Your task to perform on an android device: turn off picture-in-picture Image 0: 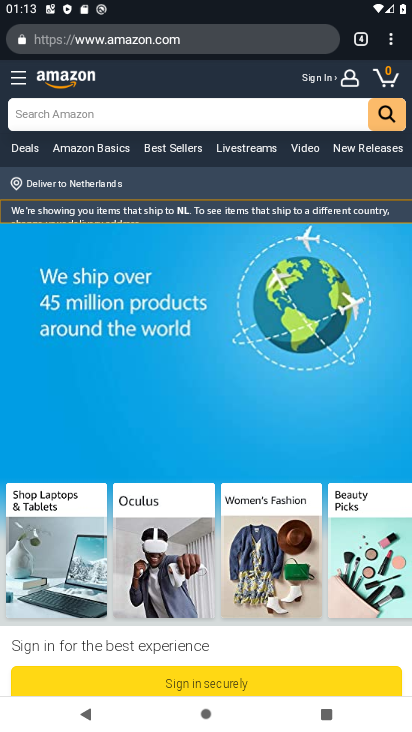
Step 0: press home button
Your task to perform on an android device: turn off picture-in-picture Image 1: 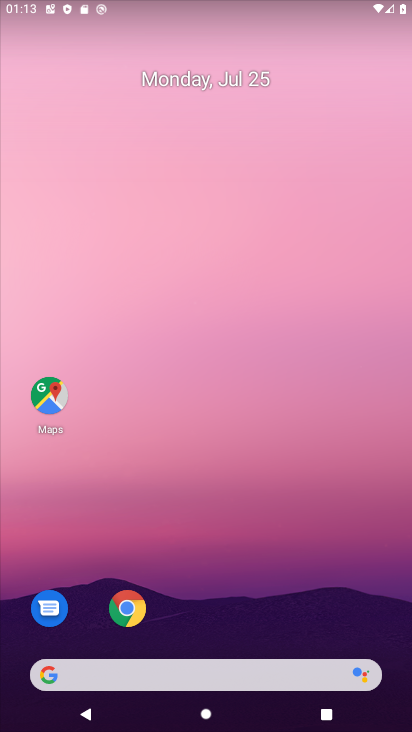
Step 1: drag from (196, 631) to (187, 42)
Your task to perform on an android device: turn off picture-in-picture Image 2: 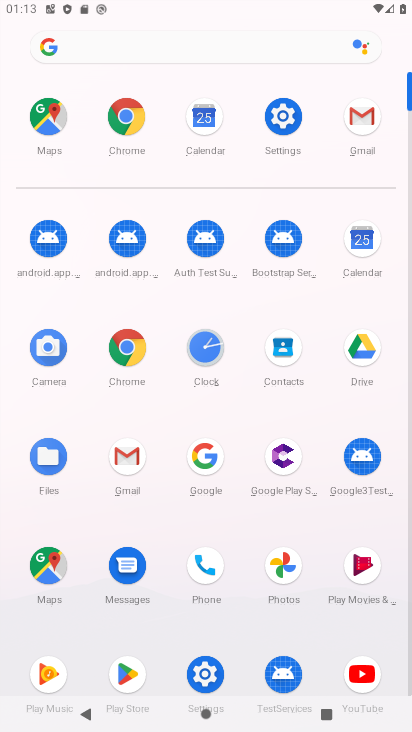
Step 2: click (284, 111)
Your task to perform on an android device: turn off picture-in-picture Image 3: 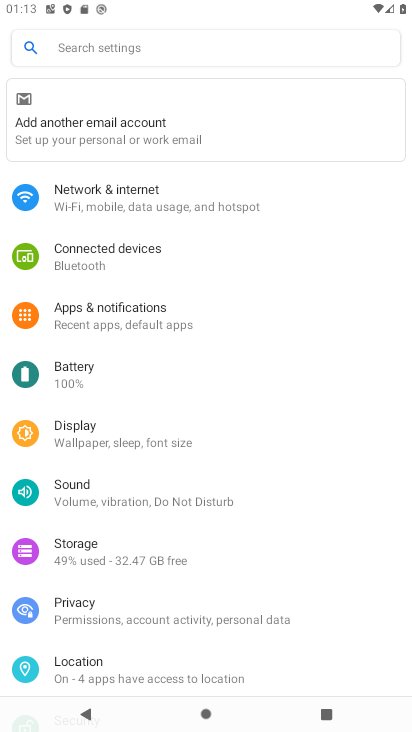
Step 3: click (98, 298)
Your task to perform on an android device: turn off picture-in-picture Image 4: 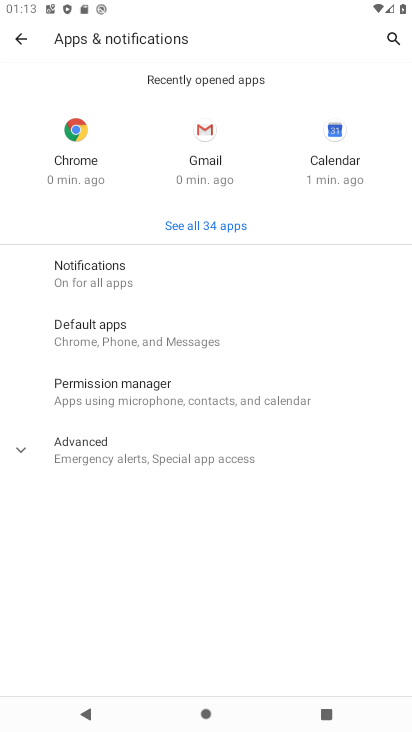
Step 4: click (114, 272)
Your task to perform on an android device: turn off picture-in-picture Image 5: 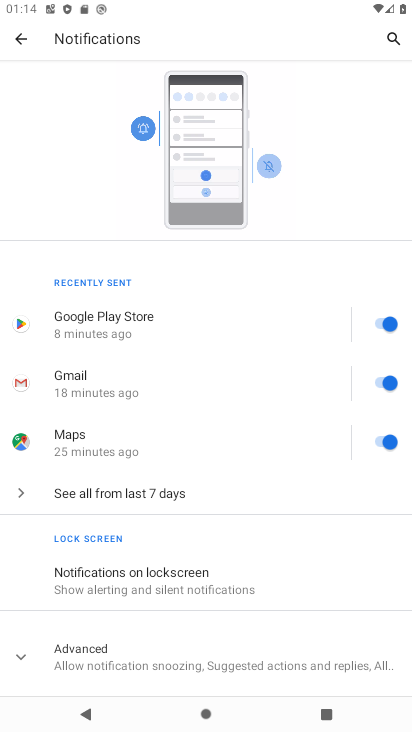
Step 5: click (157, 672)
Your task to perform on an android device: turn off picture-in-picture Image 6: 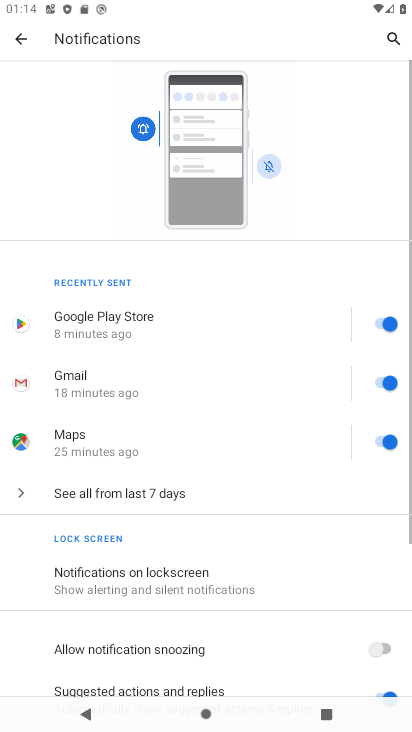
Step 6: drag from (178, 626) to (144, 170)
Your task to perform on an android device: turn off picture-in-picture Image 7: 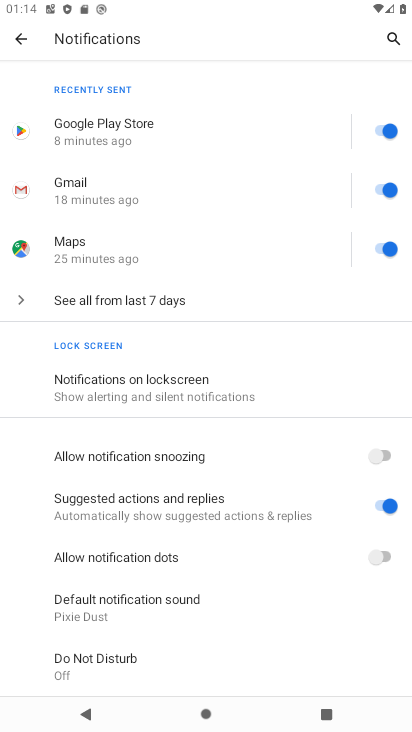
Step 7: click (41, 32)
Your task to perform on an android device: turn off picture-in-picture Image 8: 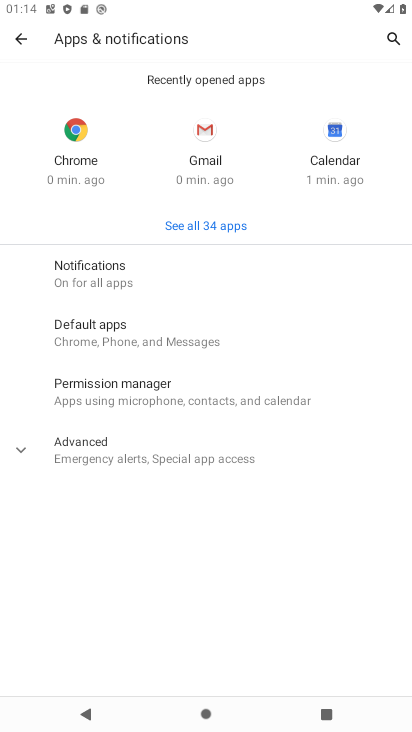
Step 8: click (30, 40)
Your task to perform on an android device: turn off picture-in-picture Image 9: 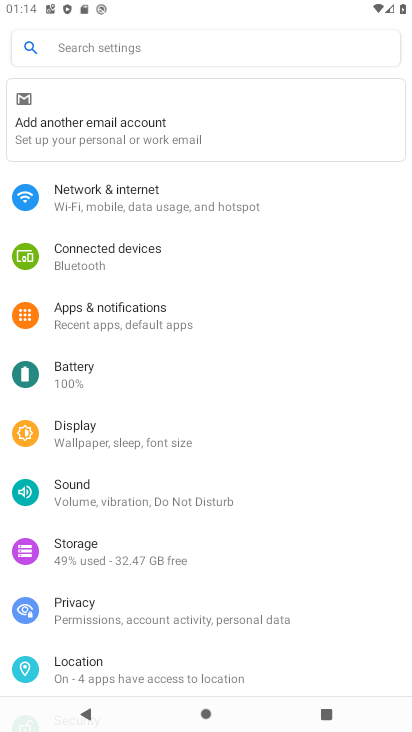
Step 9: click (101, 329)
Your task to perform on an android device: turn off picture-in-picture Image 10: 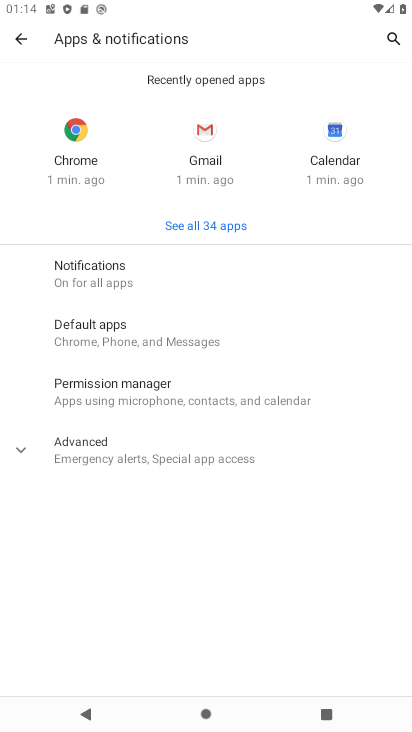
Step 10: click (122, 437)
Your task to perform on an android device: turn off picture-in-picture Image 11: 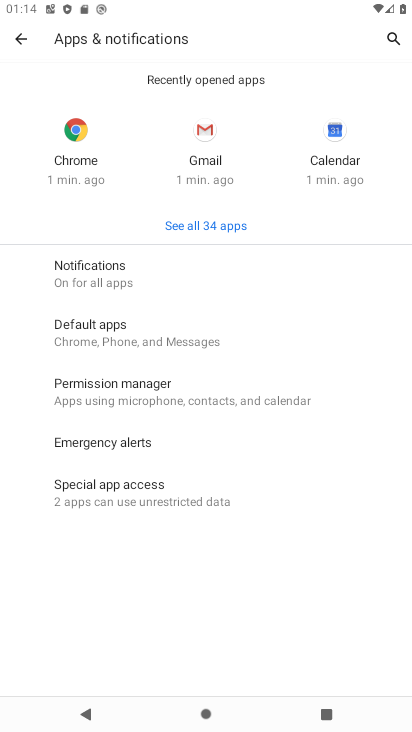
Step 11: click (128, 518)
Your task to perform on an android device: turn off picture-in-picture Image 12: 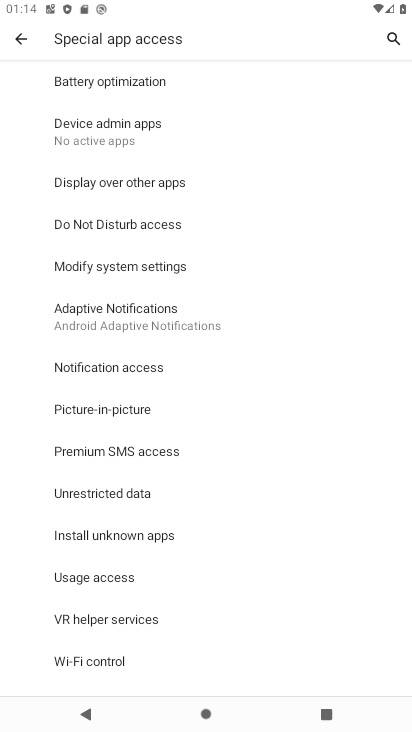
Step 12: click (121, 412)
Your task to perform on an android device: turn off picture-in-picture Image 13: 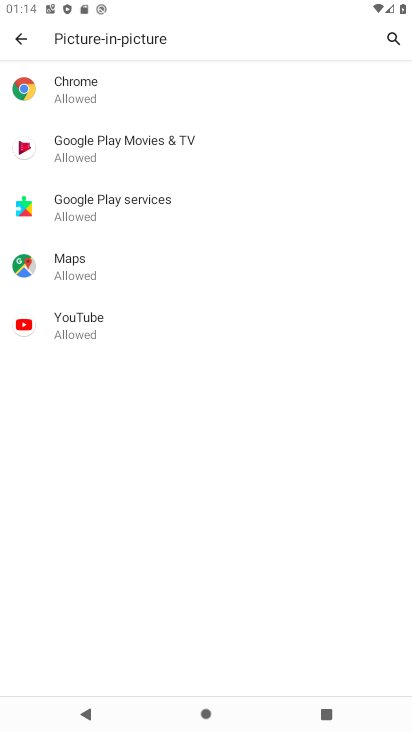
Step 13: task complete